Your task to perform on an android device: change the clock display to analog Image 0: 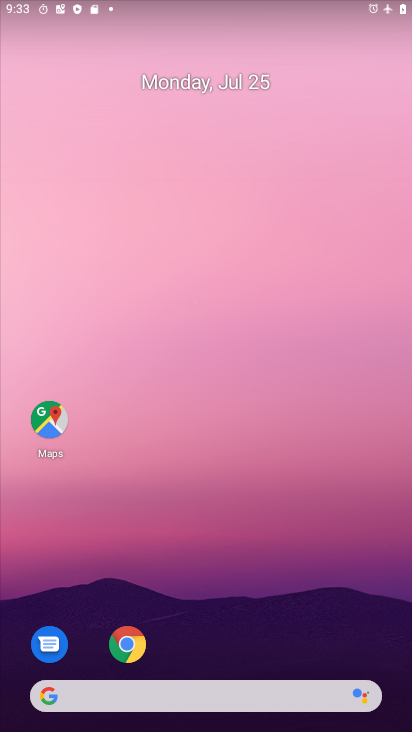
Step 0: drag from (301, 532) to (215, 0)
Your task to perform on an android device: change the clock display to analog Image 1: 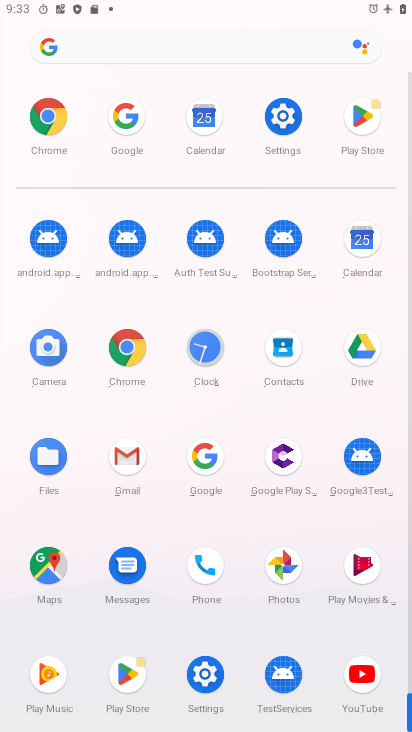
Step 1: click (287, 119)
Your task to perform on an android device: change the clock display to analog Image 2: 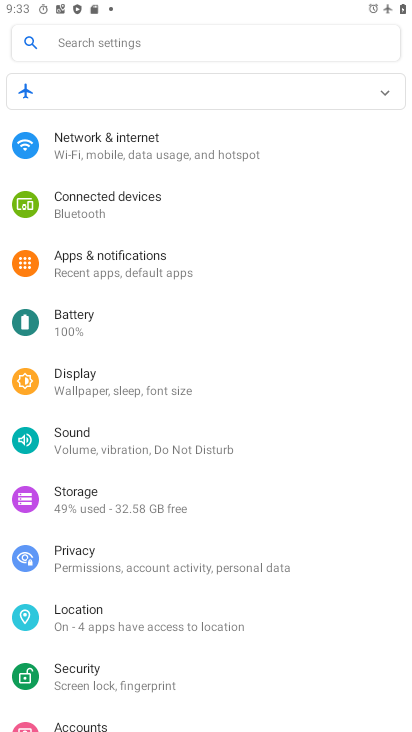
Step 2: press home button
Your task to perform on an android device: change the clock display to analog Image 3: 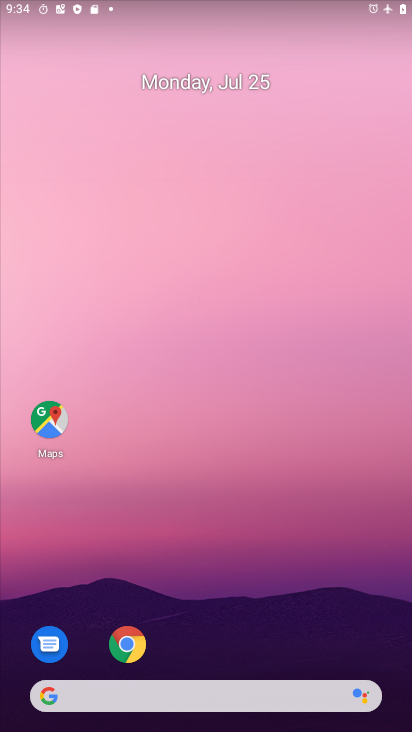
Step 3: drag from (303, 616) to (223, 43)
Your task to perform on an android device: change the clock display to analog Image 4: 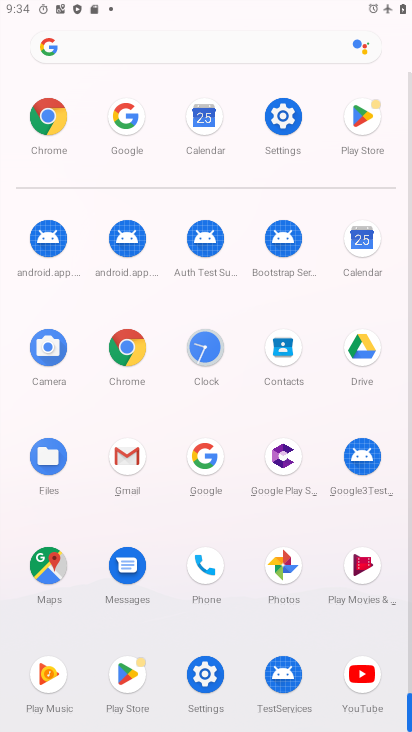
Step 4: click (214, 356)
Your task to perform on an android device: change the clock display to analog Image 5: 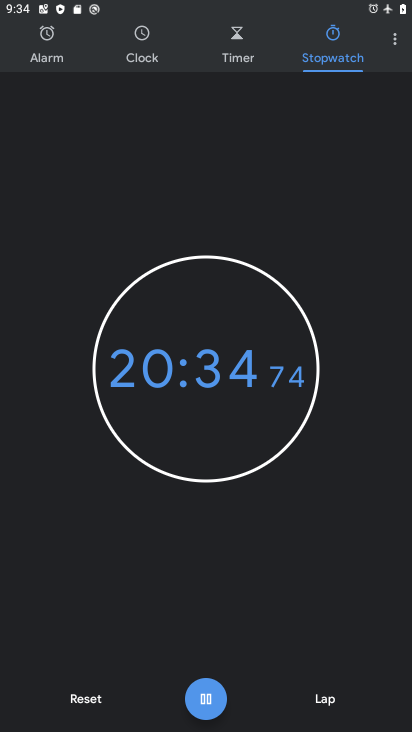
Step 5: click (393, 43)
Your task to perform on an android device: change the clock display to analog Image 6: 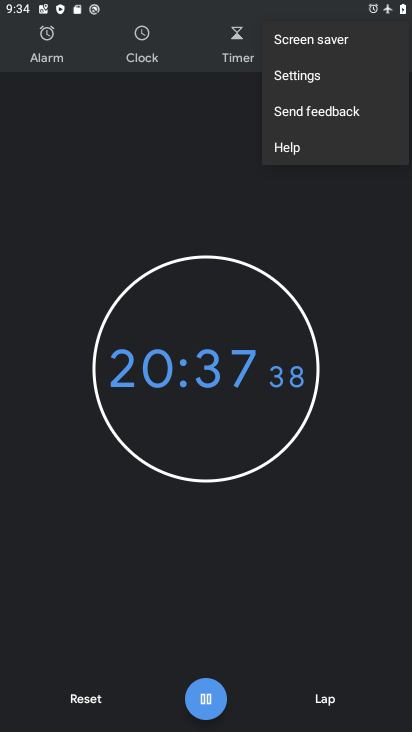
Step 6: click (312, 73)
Your task to perform on an android device: change the clock display to analog Image 7: 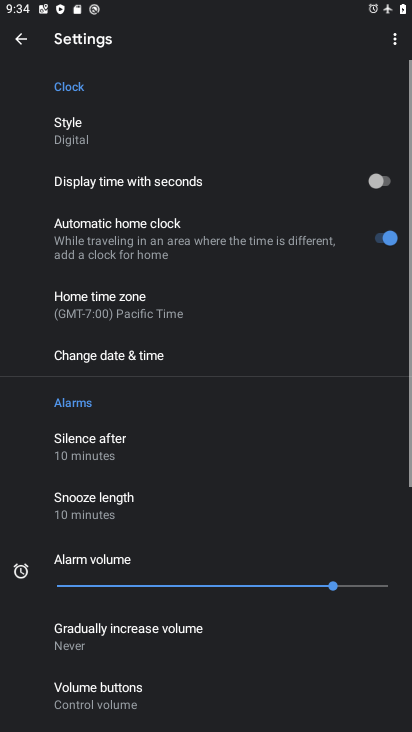
Step 7: click (92, 131)
Your task to perform on an android device: change the clock display to analog Image 8: 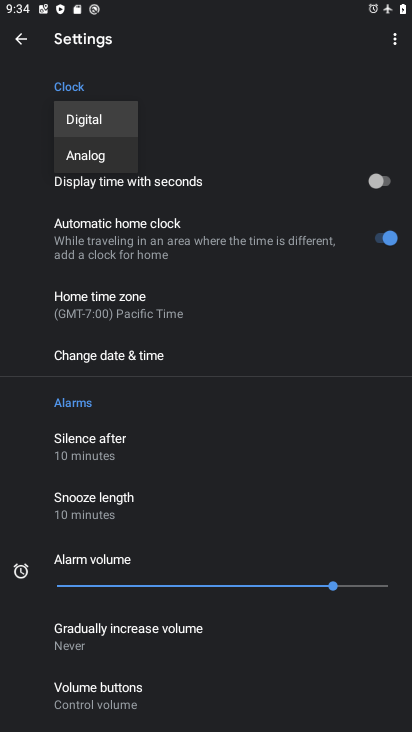
Step 8: click (102, 153)
Your task to perform on an android device: change the clock display to analog Image 9: 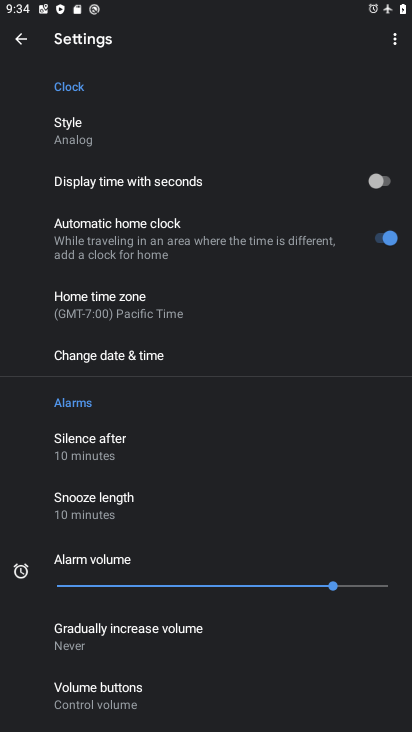
Step 9: task complete